Your task to perform on an android device: open sync settings in chrome Image 0: 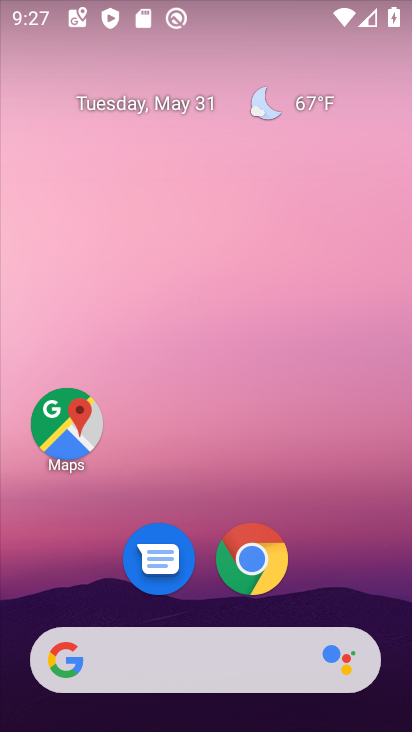
Step 0: click (264, 555)
Your task to perform on an android device: open sync settings in chrome Image 1: 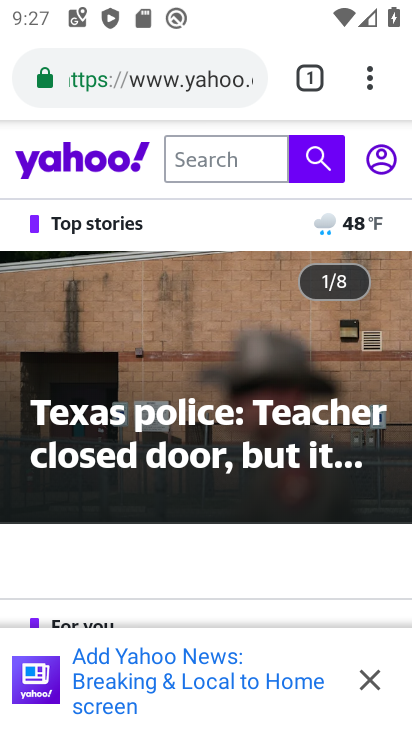
Step 1: click (360, 84)
Your task to perform on an android device: open sync settings in chrome Image 2: 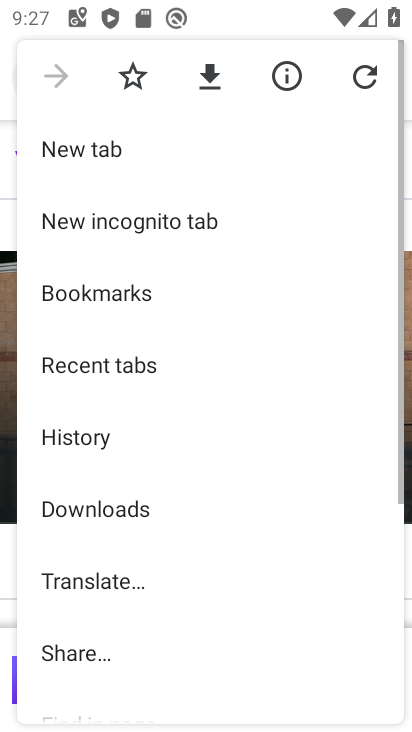
Step 2: drag from (184, 594) to (189, 148)
Your task to perform on an android device: open sync settings in chrome Image 3: 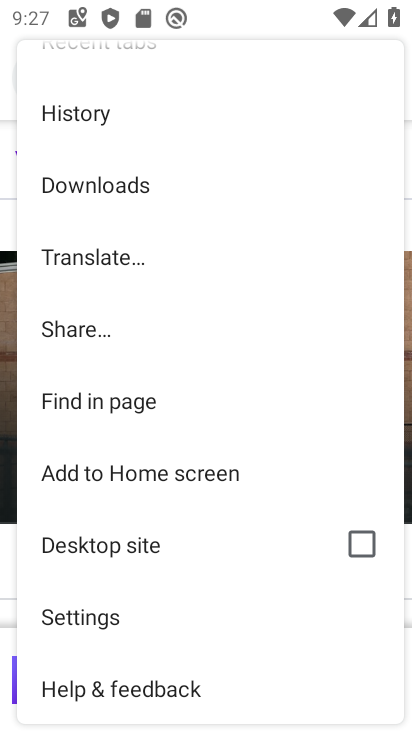
Step 3: click (86, 607)
Your task to perform on an android device: open sync settings in chrome Image 4: 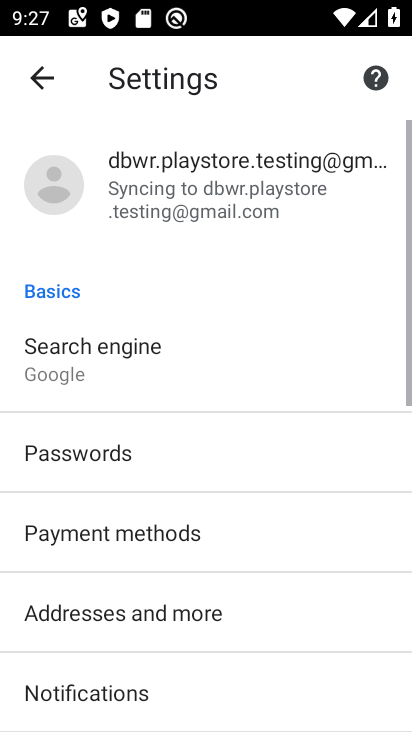
Step 4: drag from (232, 584) to (173, 172)
Your task to perform on an android device: open sync settings in chrome Image 5: 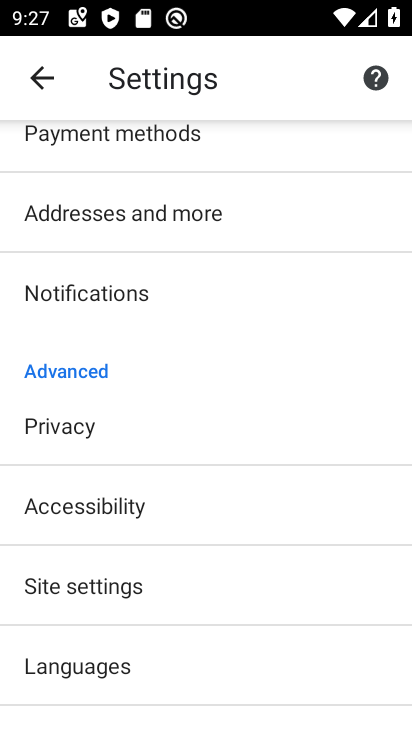
Step 5: drag from (147, 647) to (134, 507)
Your task to perform on an android device: open sync settings in chrome Image 6: 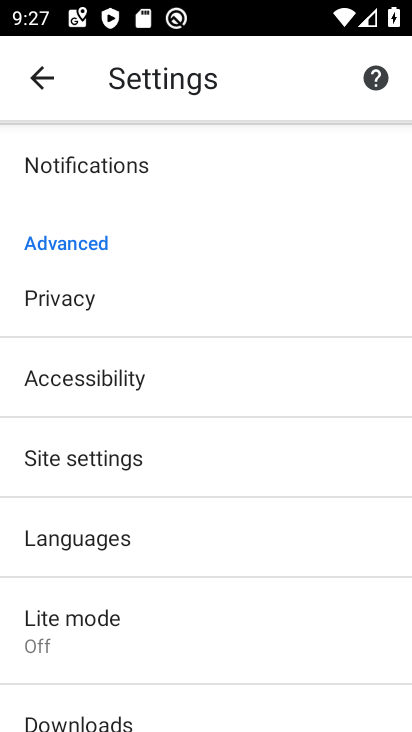
Step 6: click (110, 453)
Your task to perform on an android device: open sync settings in chrome Image 7: 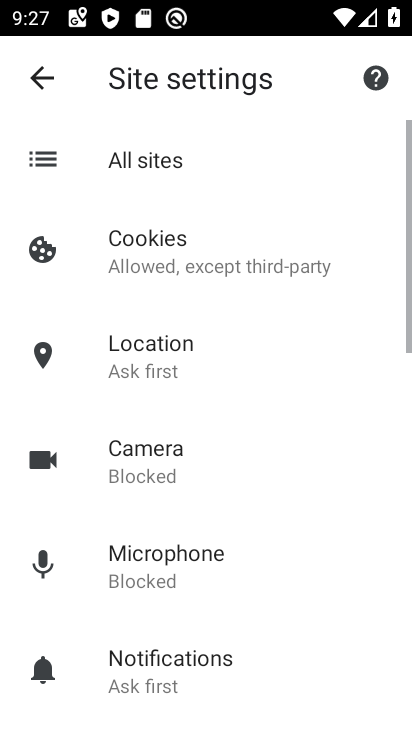
Step 7: drag from (213, 616) to (186, 173)
Your task to perform on an android device: open sync settings in chrome Image 8: 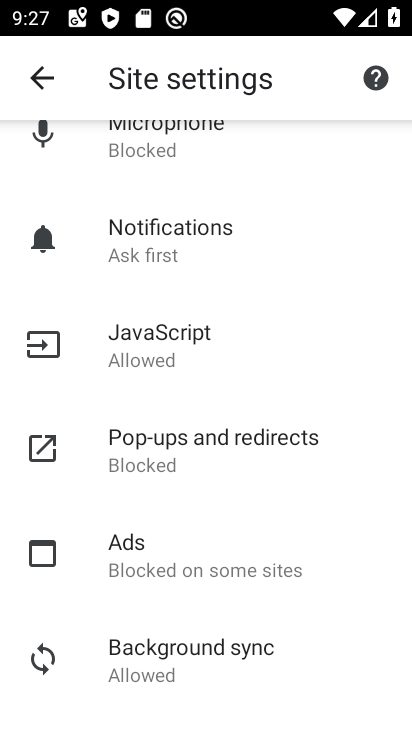
Step 8: click (160, 651)
Your task to perform on an android device: open sync settings in chrome Image 9: 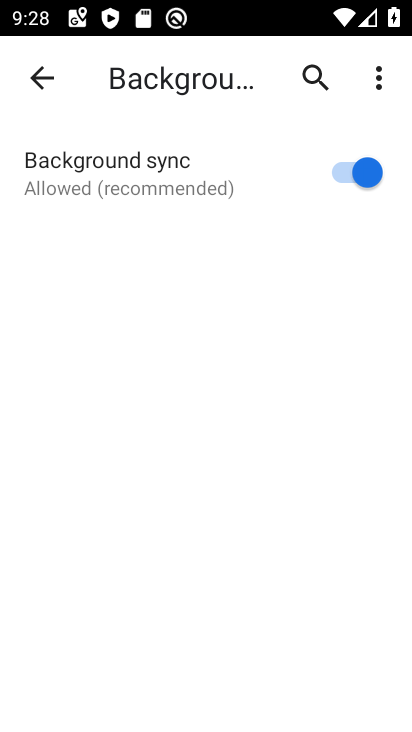
Step 9: task complete